Your task to perform on an android device: Search for a storage ottoman in the living room Image 0: 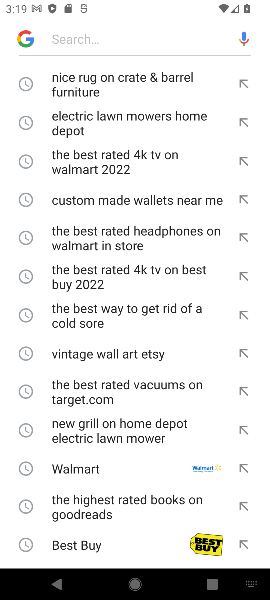
Step 0: click (81, 30)
Your task to perform on an android device: Search for a storage ottoman in the living room Image 1: 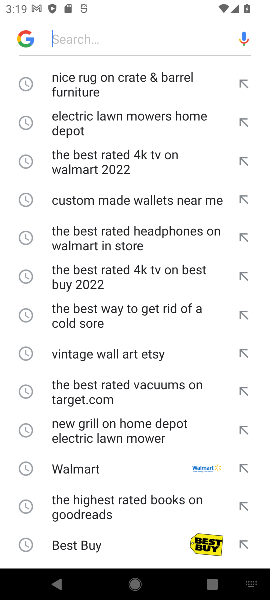
Step 1: type " storage ottoman in the living room "
Your task to perform on an android device: Search for a storage ottoman in the living room Image 2: 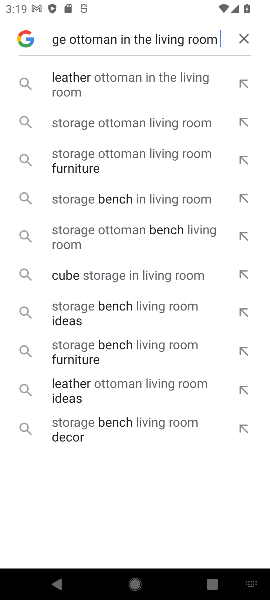
Step 2: click (140, 75)
Your task to perform on an android device: Search for a storage ottoman in the living room Image 3: 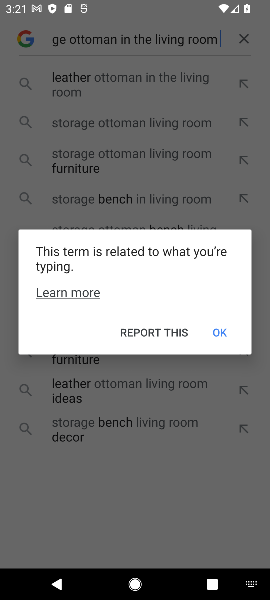
Step 3: click (218, 328)
Your task to perform on an android device: Search for a storage ottoman in the living room Image 4: 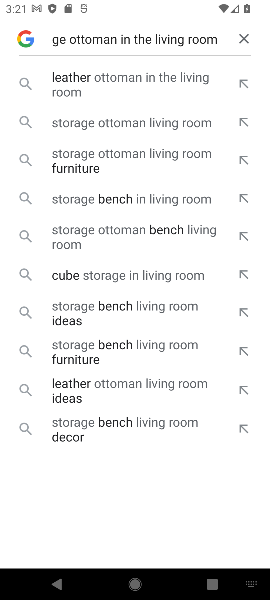
Step 4: click (117, 120)
Your task to perform on an android device: Search for a storage ottoman in the living room Image 5: 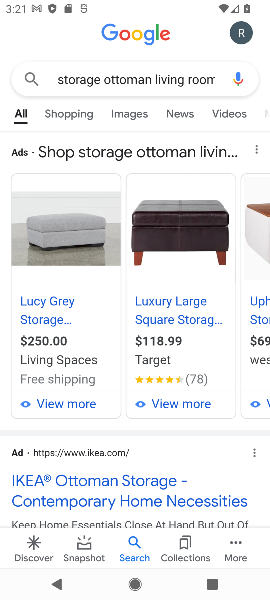
Step 5: task complete